Your task to perform on an android device: Go to battery settings Image 0: 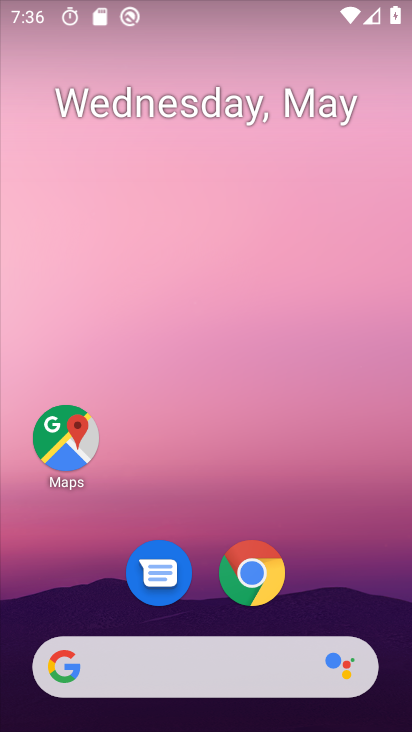
Step 0: drag from (325, 609) to (367, 70)
Your task to perform on an android device: Go to battery settings Image 1: 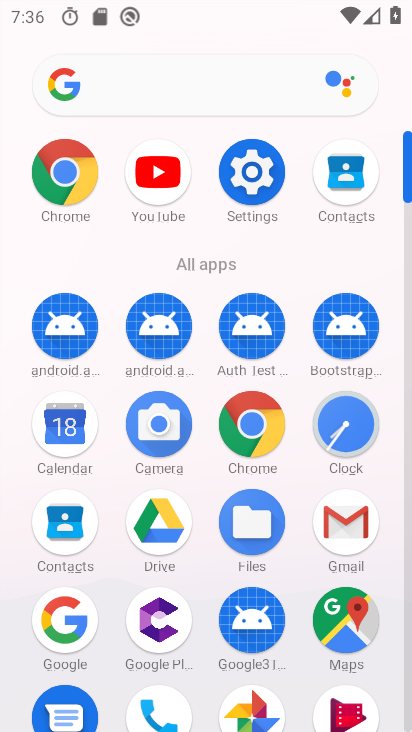
Step 1: click (244, 181)
Your task to perform on an android device: Go to battery settings Image 2: 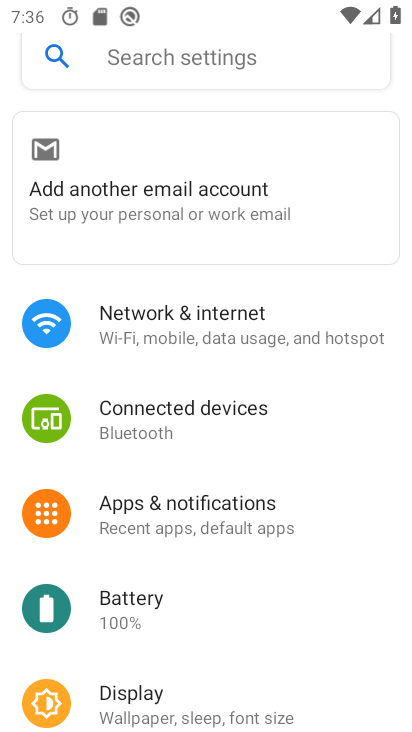
Step 2: click (194, 620)
Your task to perform on an android device: Go to battery settings Image 3: 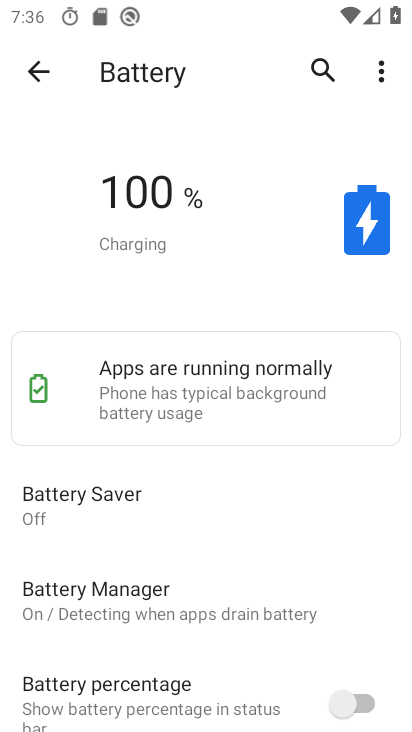
Step 3: task complete